Your task to perform on an android device: turn off picture-in-picture Image 0: 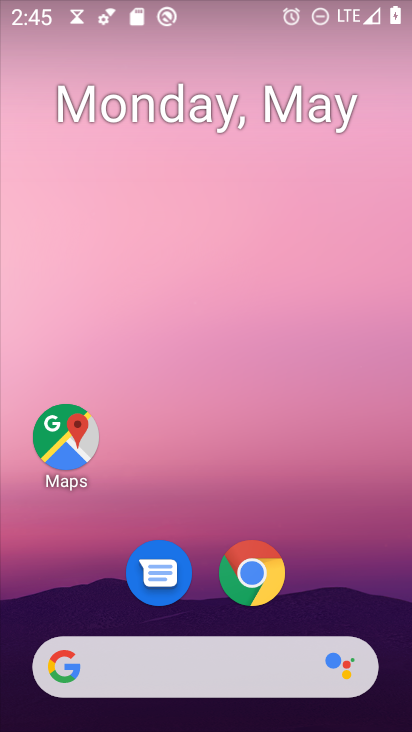
Step 0: drag from (218, 663) to (229, 49)
Your task to perform on an android device: turn off picture-in-picture Image 1: 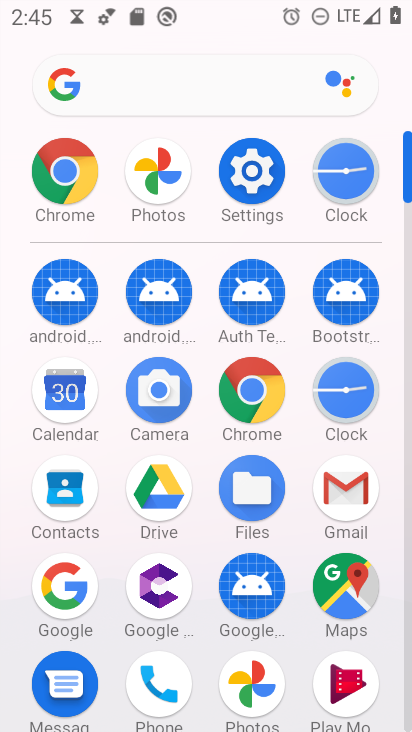
Step 1: click (259, 183)
Your task to perform on an android device: turn off picture-in-picture Image 2: 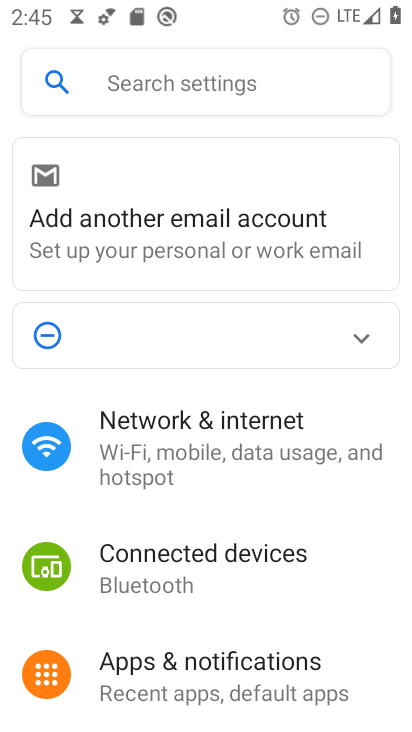
Step 2: drag from (295, 605) to (294, 127)
Your task to perform on an android device: turn off picture-in-picture Image 3: 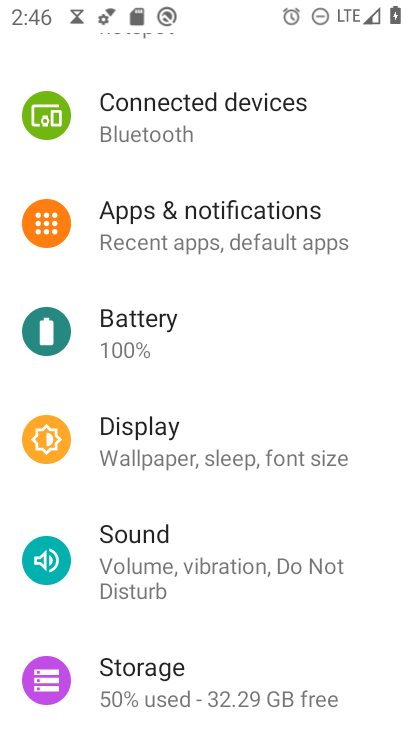
Step 3: drag from (232, 247) to (251, 370)
Your task to perform on an android device: turn off picture-in-picture Image 4: 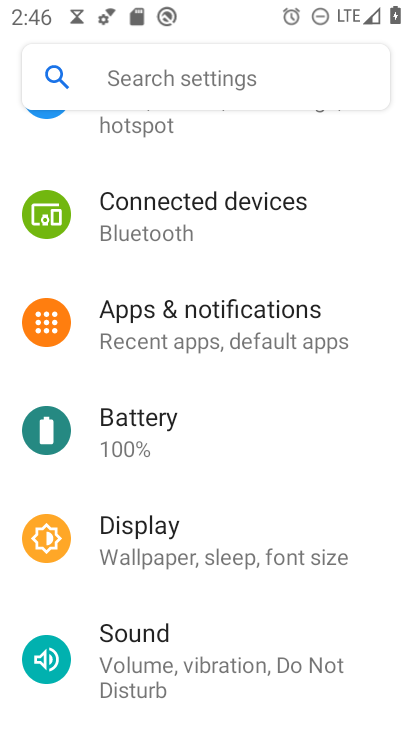
Step 4: click (200, 348)
Your task to perform on an android device: turn off picture-in-picture Image 5: 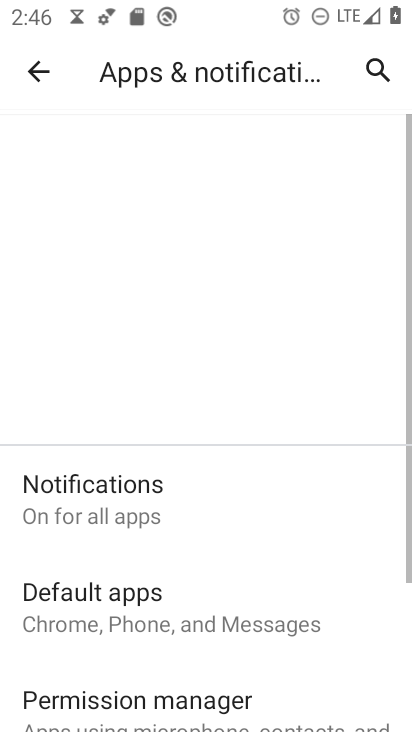
Step 5: drag from (274, 685) to (303, 112)
Your task to perform on an android device: turn off picture-in-picture Image 6: 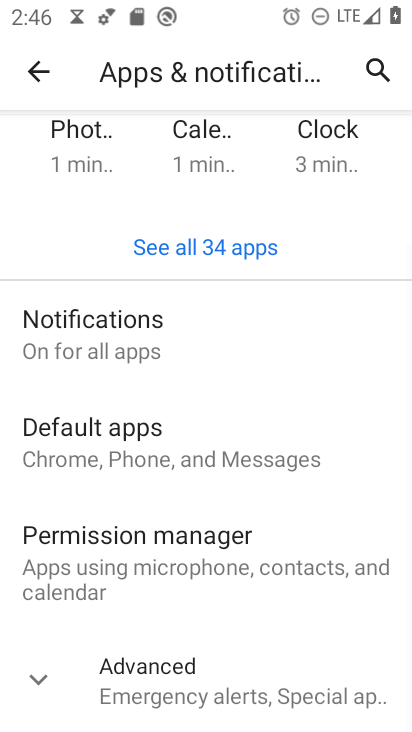
Step 6: click (211, 676)
Your task to perform on an android device: turn off picture-in-picture Image 7: 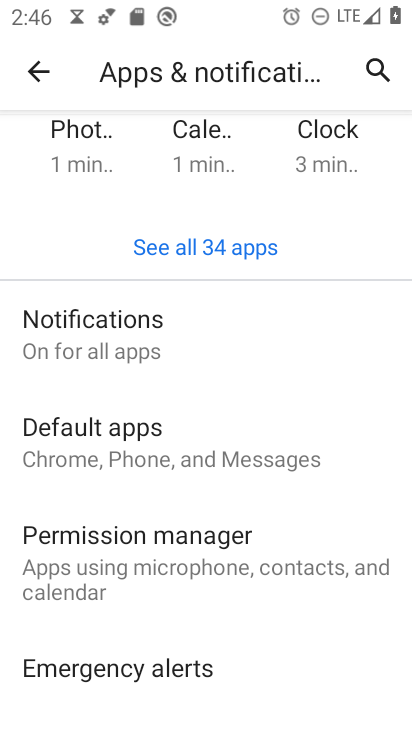
Step 7: drag from (175, 657) to (145, 228)
Your task to perform on an android device: turn off picture-in-picture Image 8: 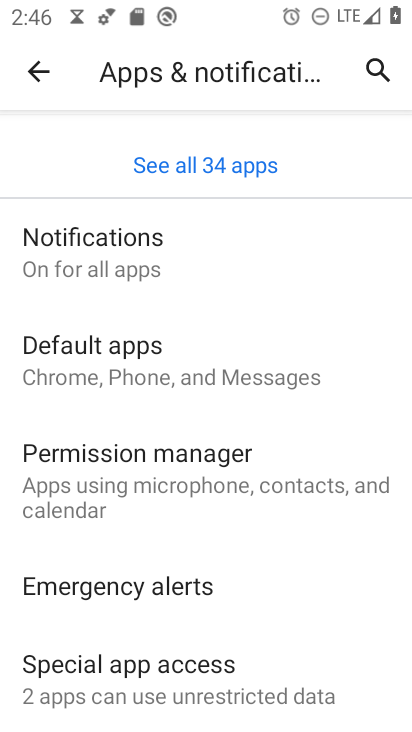
Step 8: click (144, 662)
Your task to perform on an android device: turn off picture-in-picture Image 9: 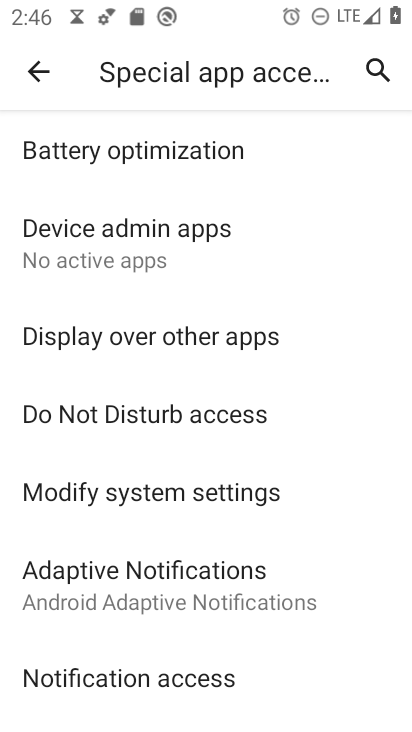
Step 9: drag from (259, 662) to (251, 257)
Your task to perform on an android device: turn off picture-in-picture Image 10: 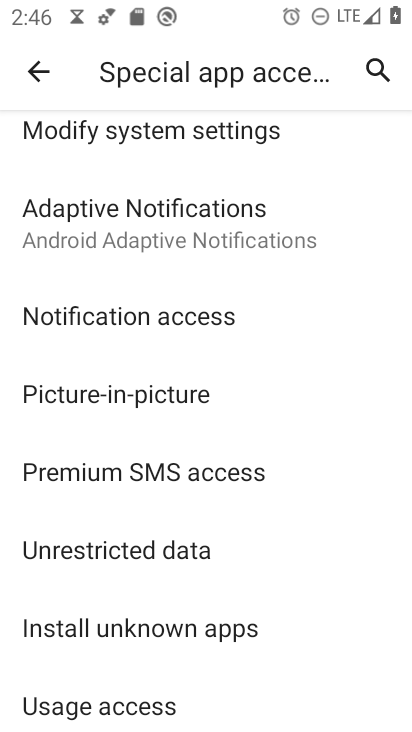
Step 10: click (162, 393)
Your task to perform on an android device: turn off picture-in-picture Image 11: 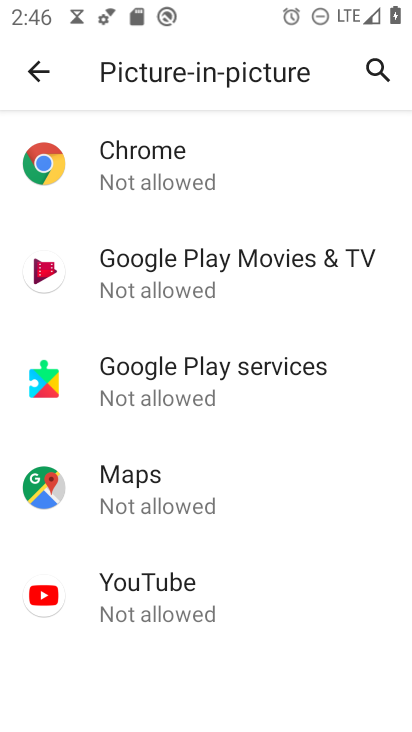
Step 11: click (215, 165)
Your task to perform on an android device: turn off picture-in-picture Image 12: 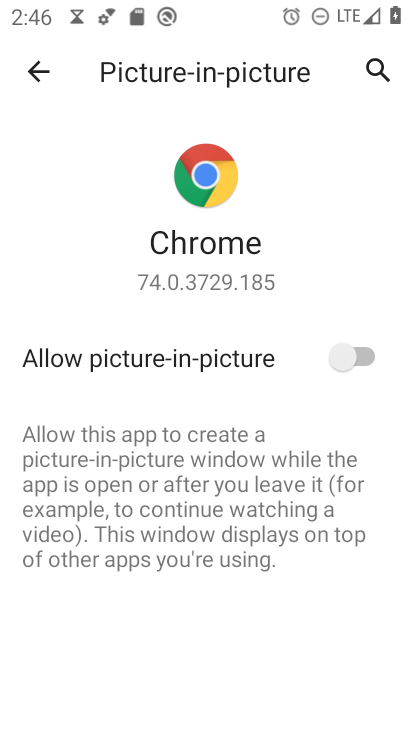
Step 12: task complete